Your task to perform on an android device: turn notification dots on Image 0: 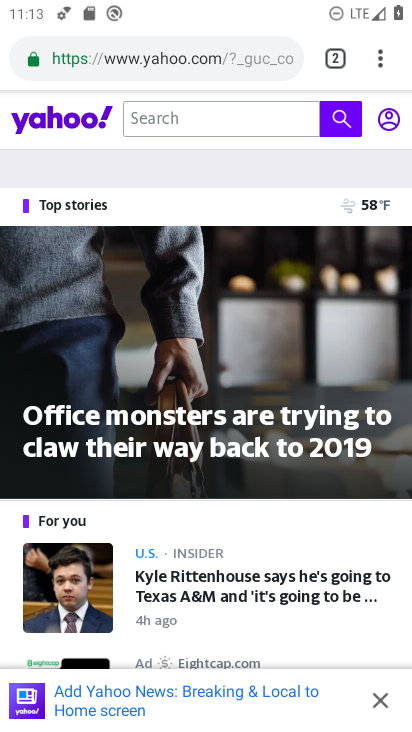
Step 0: press home button
Your task to perform on an android device: turn notification dots on Image 1: 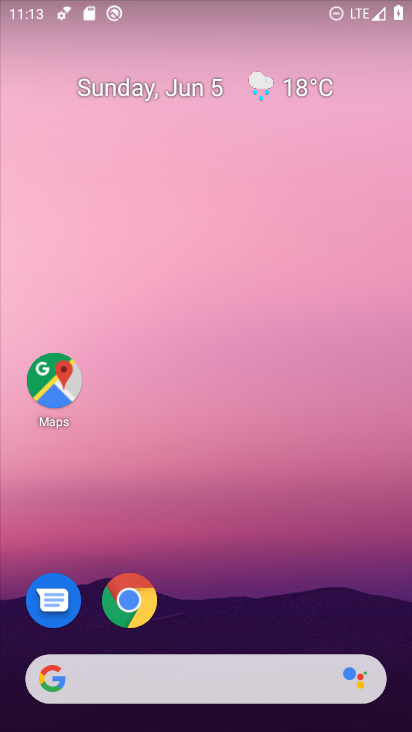
Step 1: drag from (232, 622) to (215, 235)
Your task to perform on an android device: turn notification dots on Image 2: 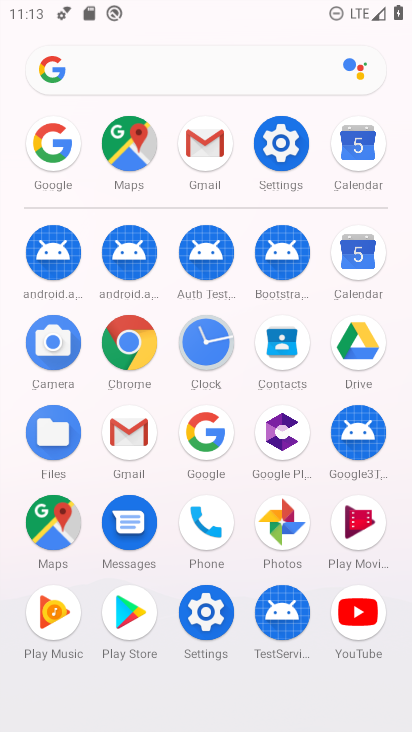
Step 2: click (281, 150)
Your task to perform on an android device: turn notification dots on Image 3: 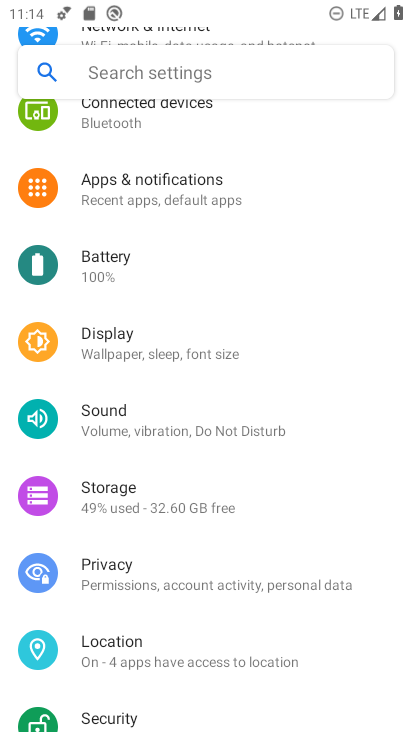
Step 3: click (186, 213)
Your task to perform on an android device: turn notification dots on Image 4: 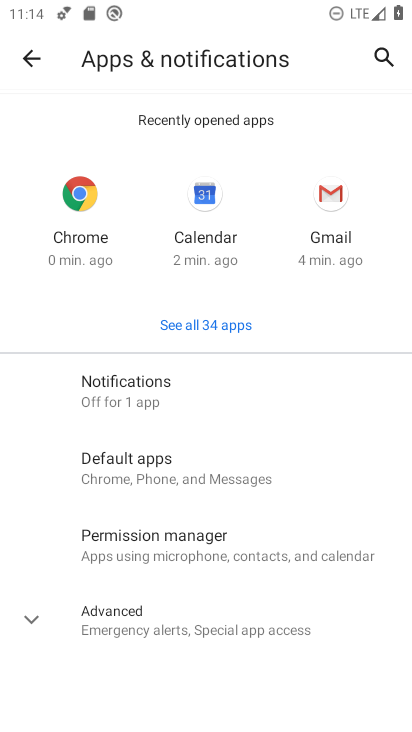
Step 4: click (179, 392)
Your task to perform on an android device: turn notification dots on Image 5: 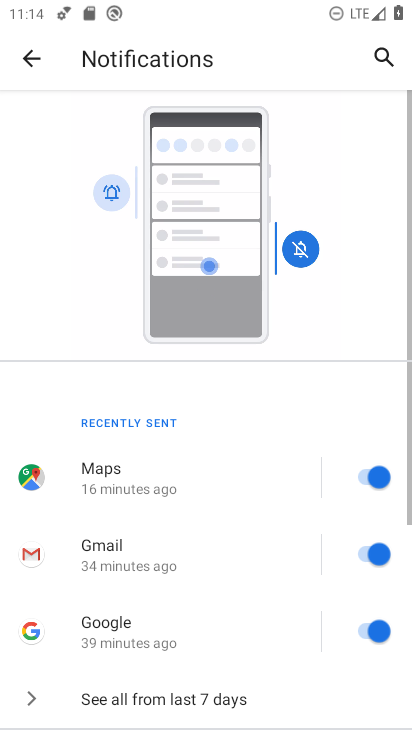
Step 5: drag from (185, 620) to (207, 276)
Your task to perform on an android device: turn notification dots on Image 6: 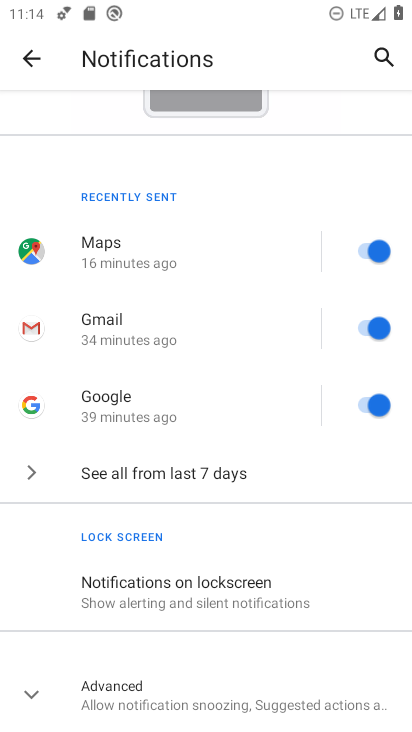
Step 6: drag from (243, 687) to (241, 415)
Your task to perform on an android device: turn notification dots on Image 7: 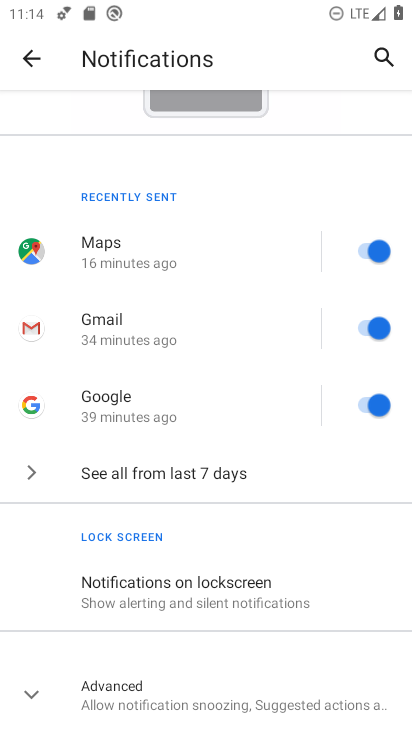
Step 7: click (240, 694)
Your task to perform on an android device: turn notification dots on Image 8: 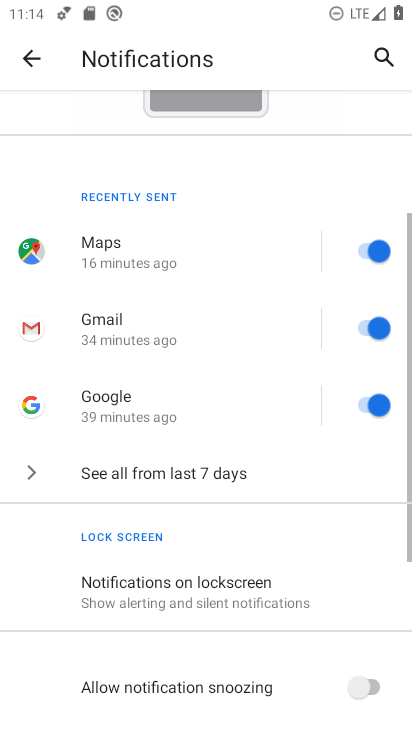
Step 8: drag from (239, 693) to (273, 335)
Your task to perform on an android device: turn notification dots on Image 9: 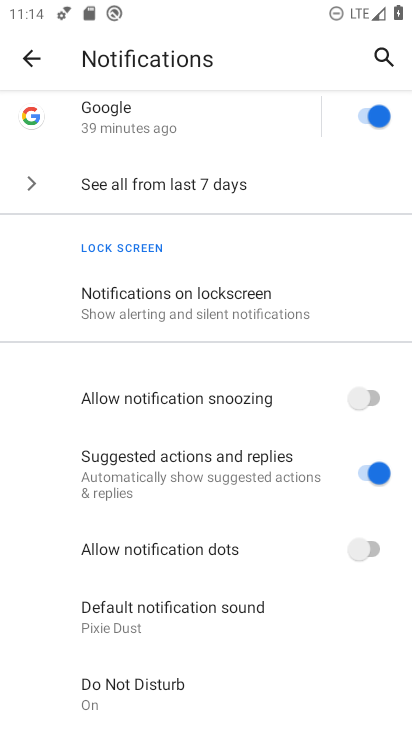
Step 9: click (371, 556)
Your task to perform on an android device: turn notification dots on Image 10: 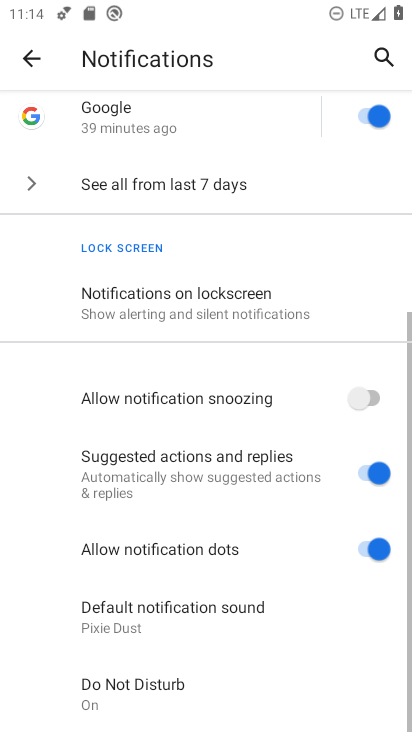
Step 10: task complete